Your task to perform on an android device: Go to internet settings Image 0: 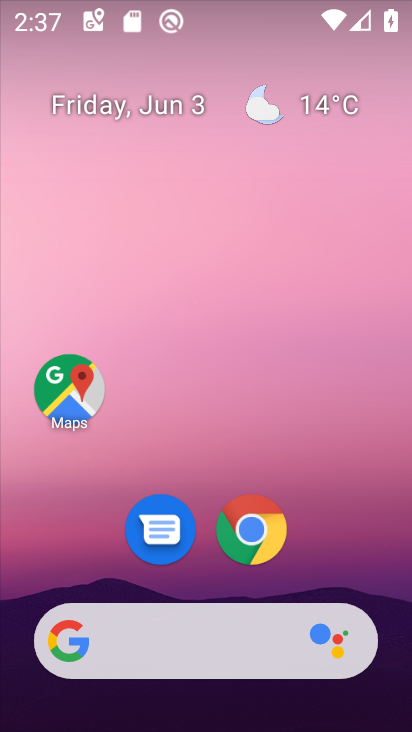
Step 0: drag from (312, 637) to (247, 75)
Your task to perform on an android device: Go to internet settings Image 1: 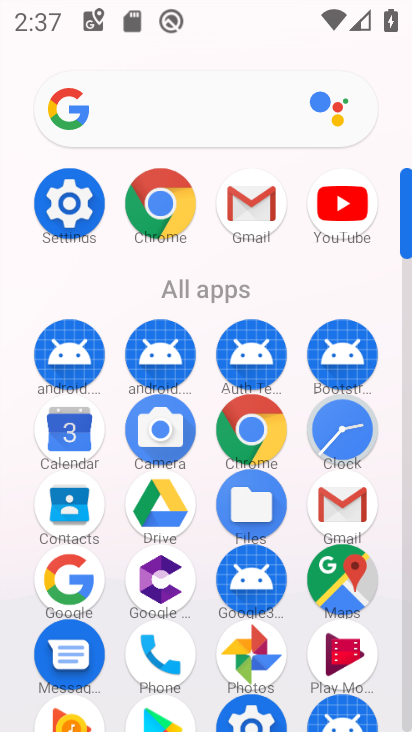
Step 1: click (74, 220)
Your task to perform on an android device: Go to internet settings Image 2: 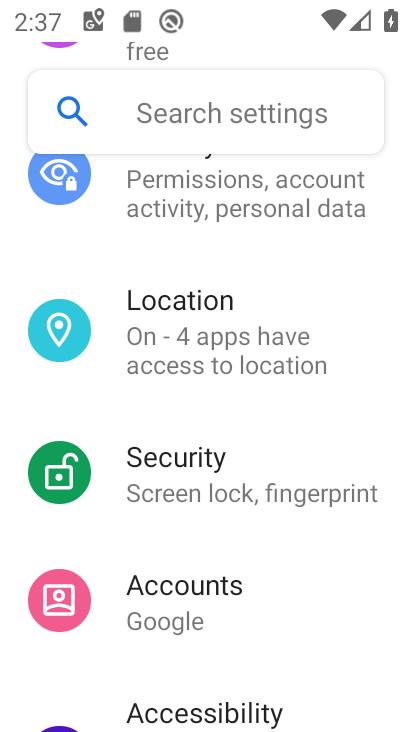
Step 2: drag from (241, 270) to (268, 507)
Your task to perform on an android device: Go to internet settings Image 3: 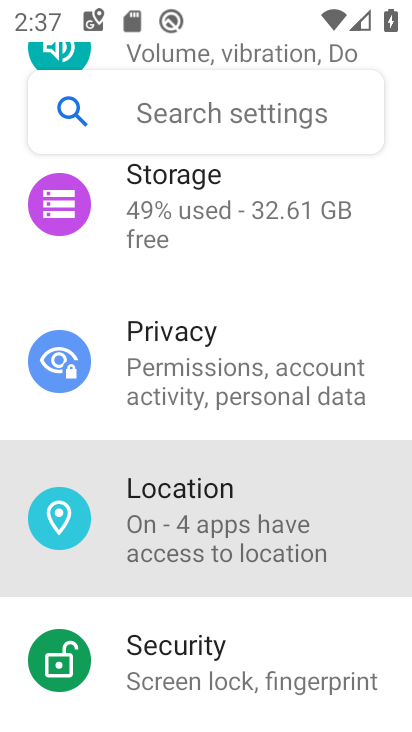
Step 3: drag from (198, 294) to (261, 533)
Your task to perform on an android device: Go to internet settings Image 4: 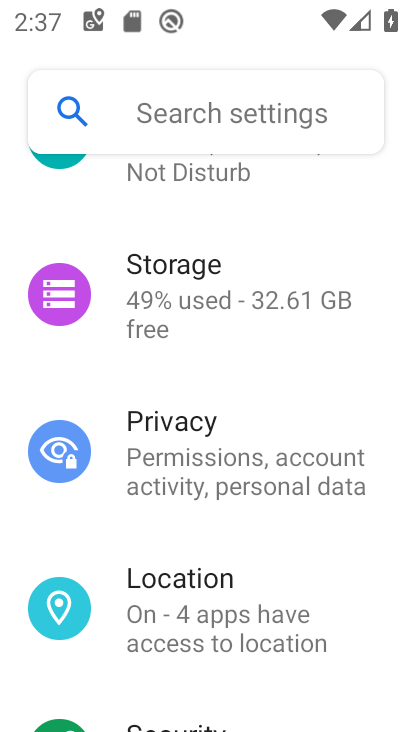
Step 4: drag from (207, 461) to (209, 523)
Your task to perform on an android device: Go to internet settings Image 5: 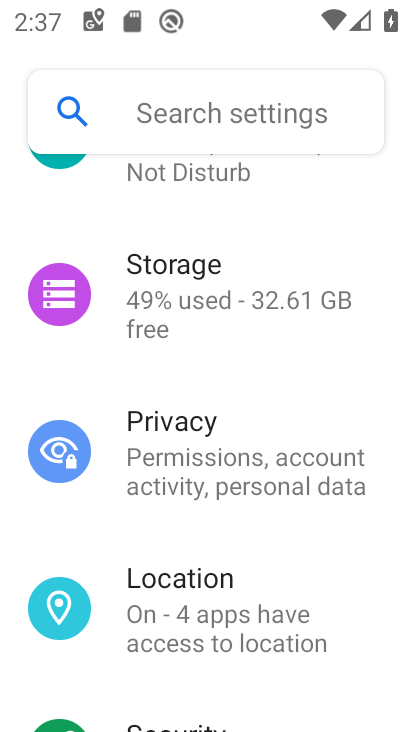
Step 5: drag from (192, 274) to (274, 618)
Your task to perform on an android device: Go to internet settings Image 6: 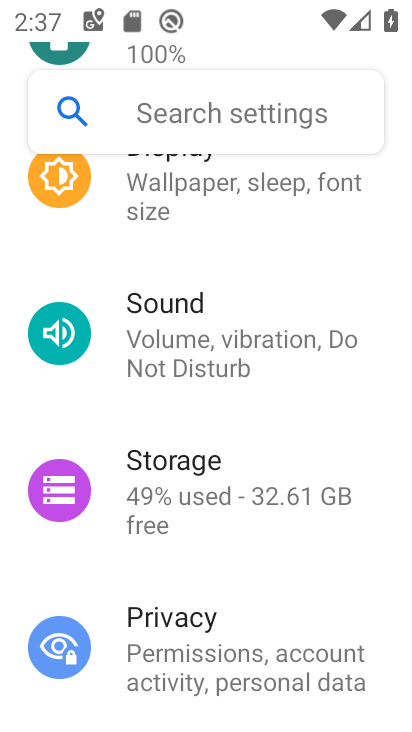
Step 6: drag from (196, 311) to (222, 575)
Your task to perform on an android device: Go to internet settings Image 7: 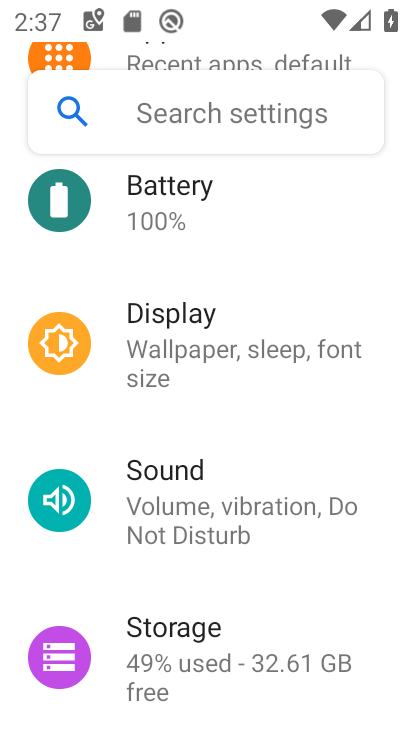
Step 7: drag from (176, 390) to (231, 625)
Your task to perform on an android device: Go to internet settings Image 8: 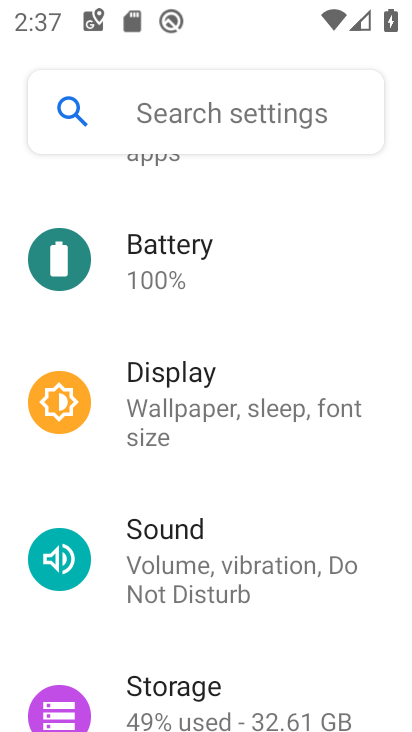
Step 8: drag from (172, 355) to (202, 586)
Your task to perform on an android device: Go to internet settings Image 9: 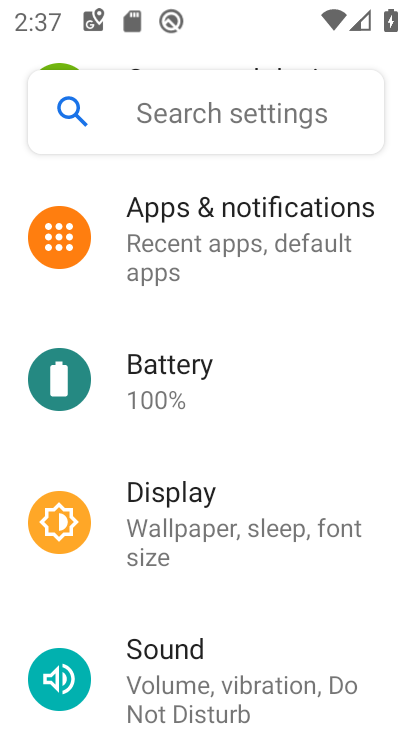
Step 9: drag from (149, 369) to (234, 655)
Your task to perform on an android device: Go to internet settings Image 10: 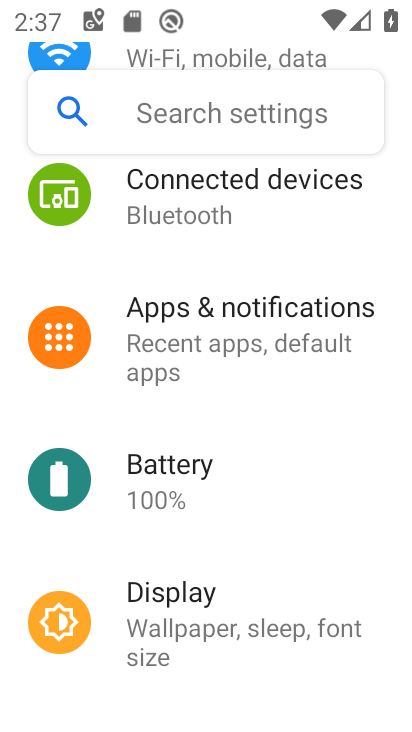
Step 10: drag from (218, 223) to (285, 652)
Your task to perform on an android device: Go to internet settings Image 11: 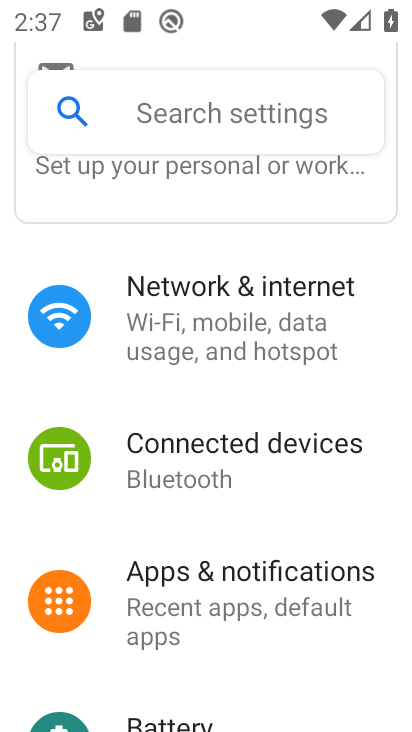
Step 11: drag from (318, 361) to (320, 596)
Your task to perform on an android device: Go to internet settings Image 12: 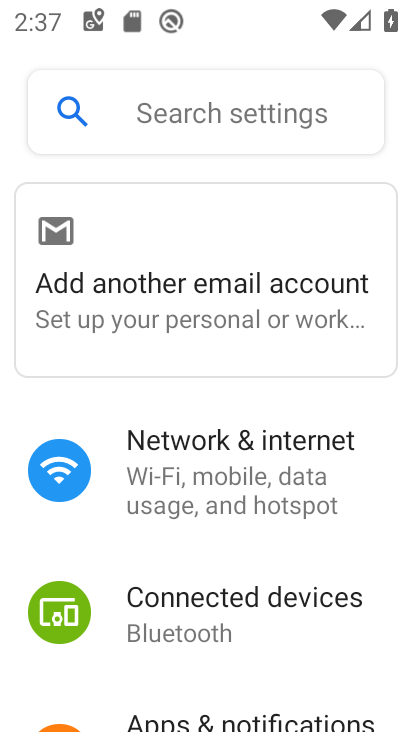
Step 12: drag from (201, 320) to (230, 702)
Your task to perform on an android device: Go to internet settings Image 13: 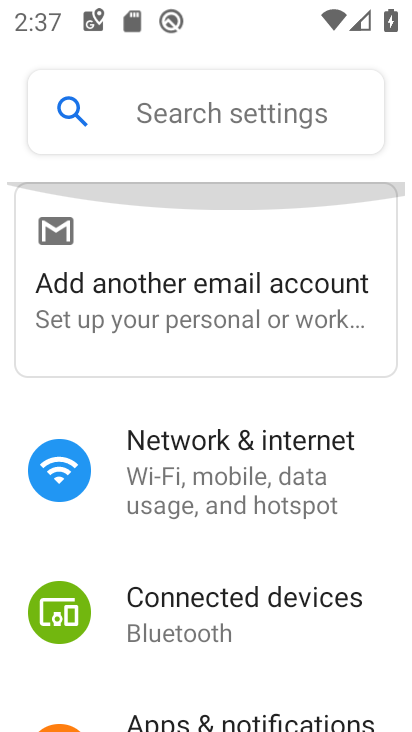
Step 13: drag from (161, 467) to (193, 727)
Your task to perform on an android device: Go to internet settings Image 14: 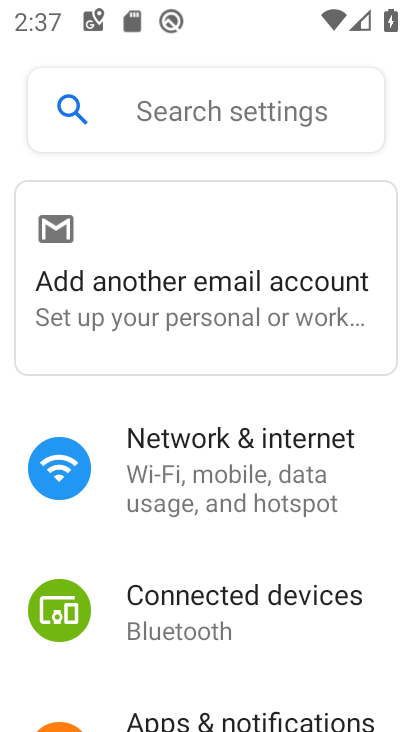
Step 14: click (245, 467)
Your task to perform on an android device: Go to internet settings Image 15: 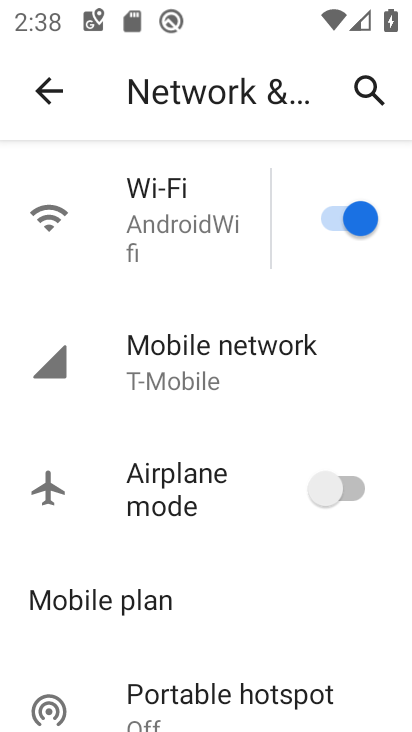
Step 15: click (154, 218)
Your task to perform on an android device: Go to internet settings Image 16: 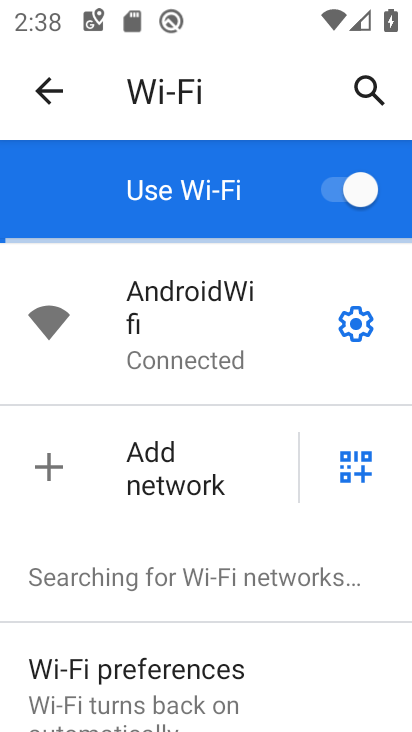
Step 16: click (35, 87)
Your task to perform on an android device: Go to internet settings Image 17: 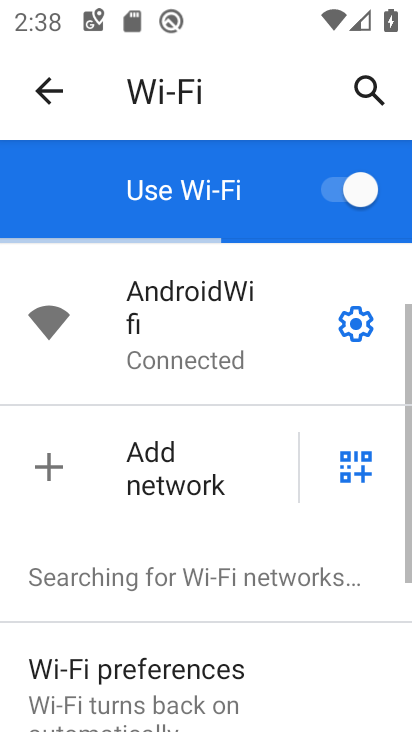
Step 17: task complete